Your task to perform on an android device: toggle pop-ups in chrome Image 0: 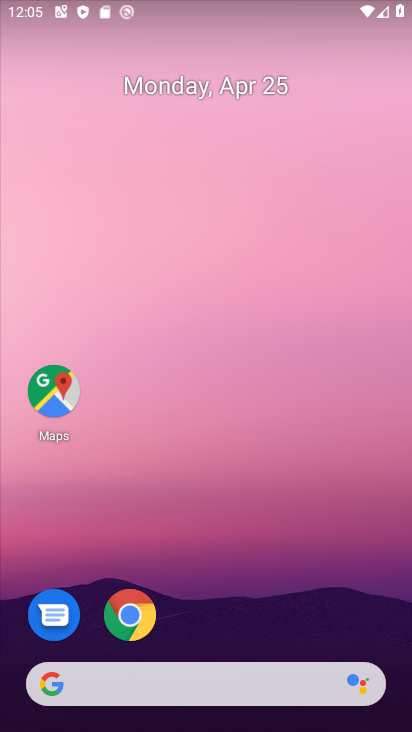
Step 0: drag from (341, 618) to (358, 98)
Your task to perform on an android device: toggle pop-ups in chrome Image 1: 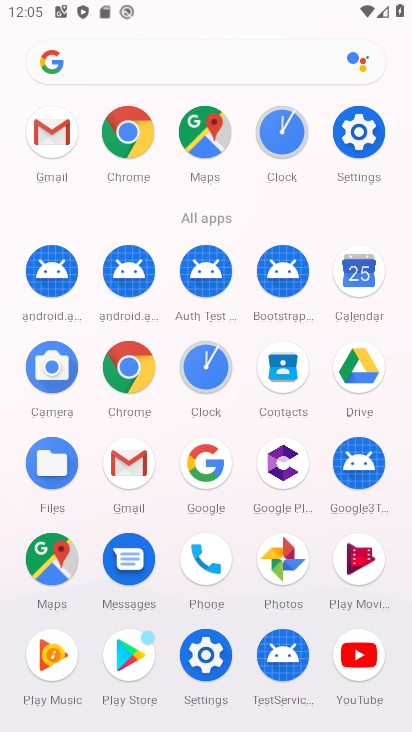
Step 1: click (144, 345)
Your task to perform on an android device: toggle pop-ups in chrome Image 2: 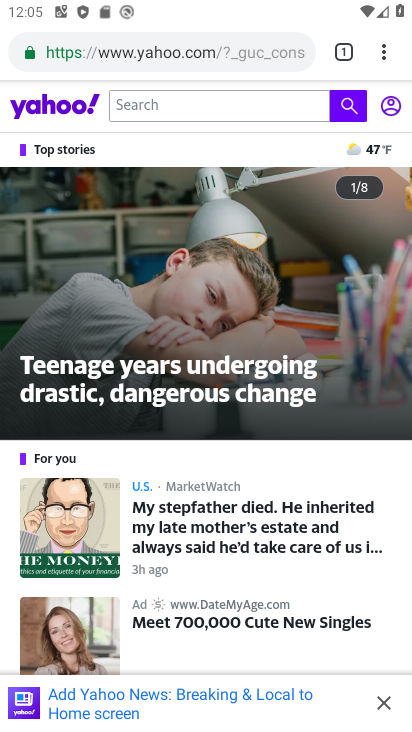
Step 2: click (384, 41)
Your task to perform on an android device: toggle pop-ups in chrome Image 3: 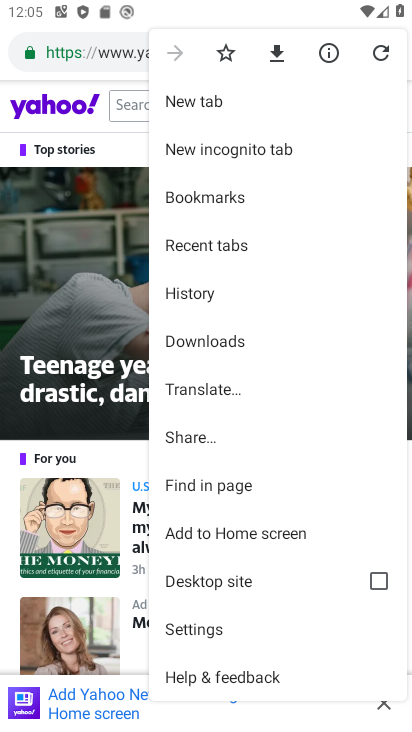
Step 3: click (217, 631)
Your task to perform on an android device: toggle pop-ups in chrome Image 4: 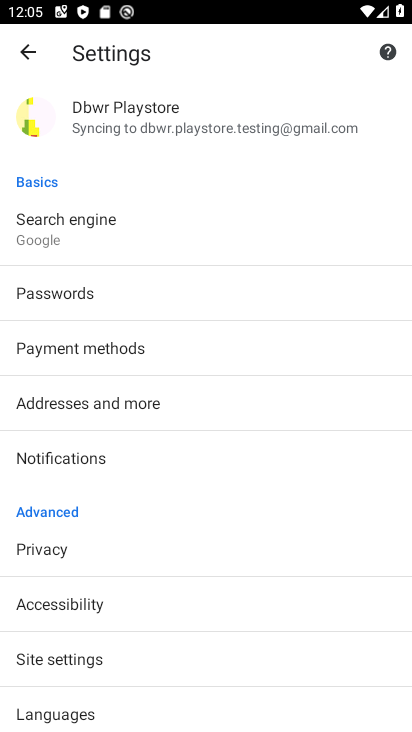
Step 4: drag from (347, 514) to (358, 378)
Your task to perform on an android device: toggle pop-ups in chrome Image 5: 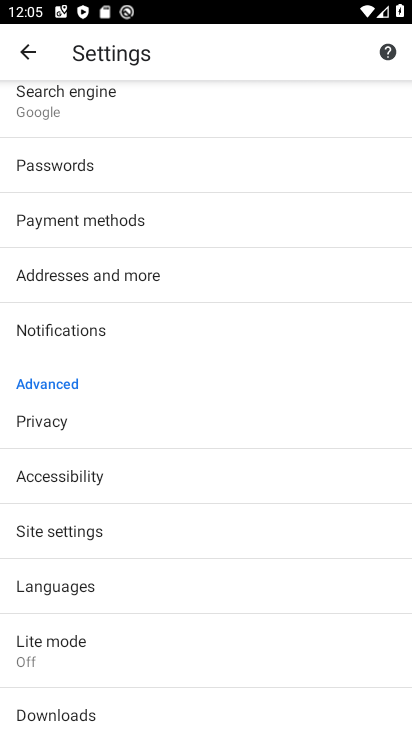
Step 5: drag from (317, 650) to (339, 453)
Your task to perform on an android device: toggle pop-ups in chrome Image 6: 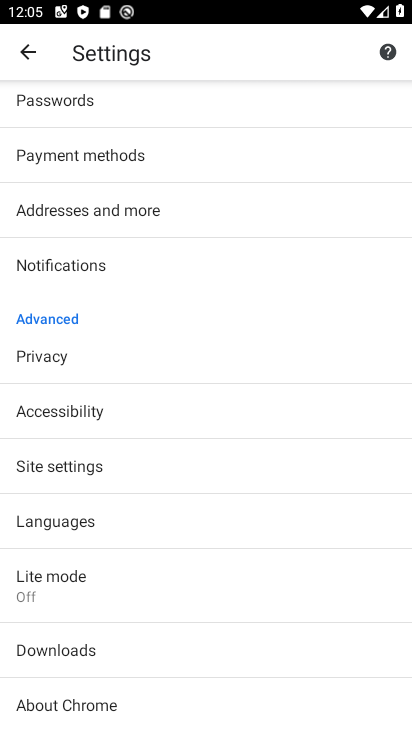
Step 6: click (223, 453)
Your task to perform on an android device: toggle pop-ups in chrome Image 7: 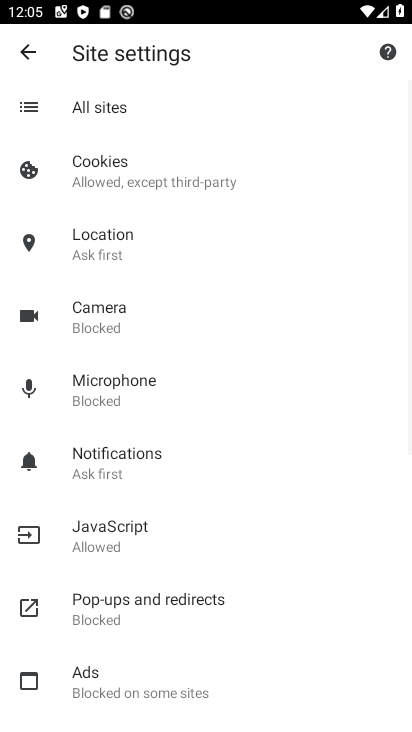
Step 7: drag from (304, 596) to (308, 479)
Your task to perform on an android device: toggle pop-ups in chrome Image 8: 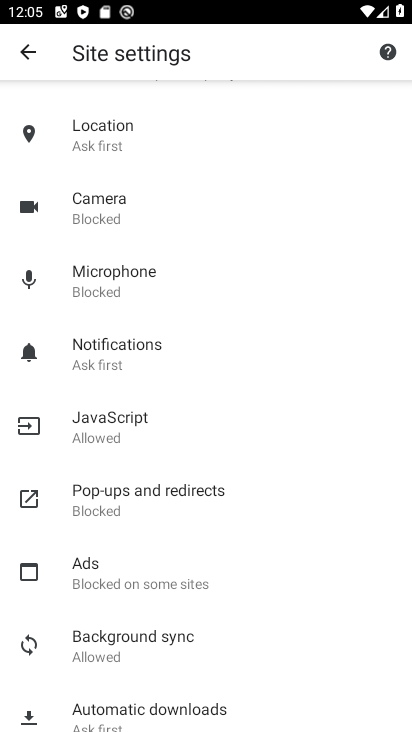
Step 8: drag from (298, 630) to (301, 514)
Your task to perform on an android device: toggle pop-ups in chrome Image 9: 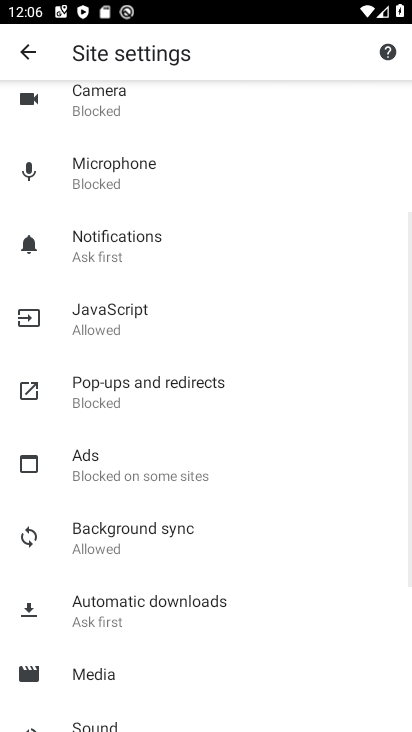
Step 9: drag from (296, 638) to (297, 504)
Your task to perform on an android device: toggle pop-ups in chrome Image 10: 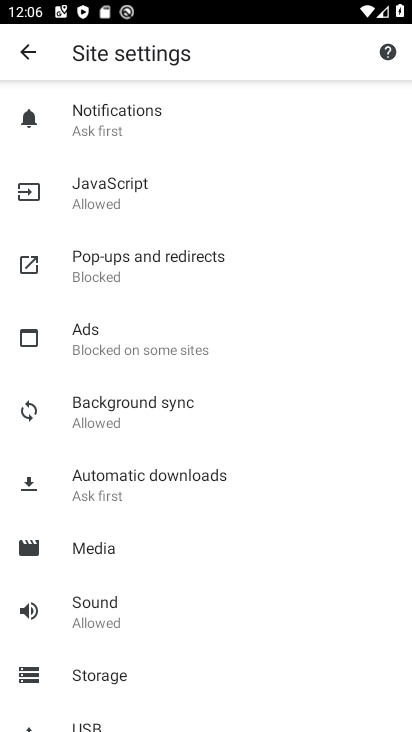
Step 10: click (208, 255)
Your task to perform on an android device: toggle pop-ups in chrome Image 11: 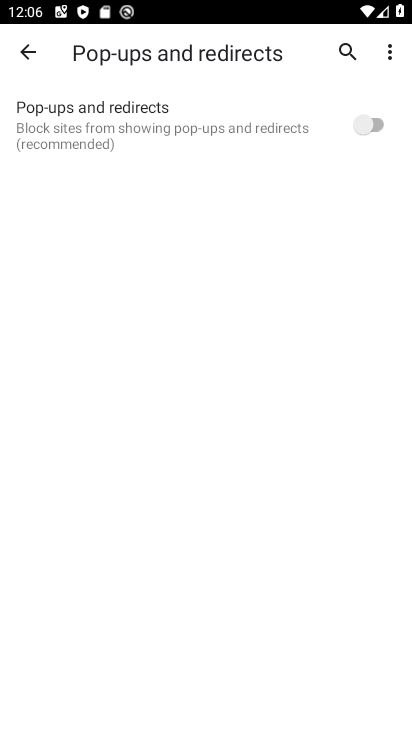
Step 11: click (375, 123)
Your task to perform on an android device: toggle pop-ups in chrome Image 12: 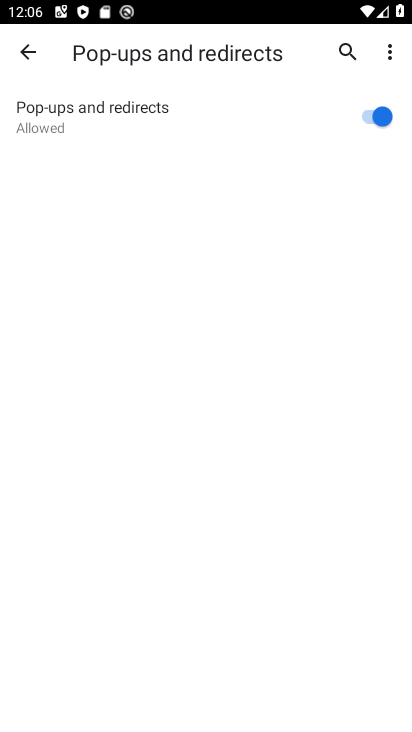
Step 12: task complete